Your task to perform on an android device: turn notification dots off Image 0: 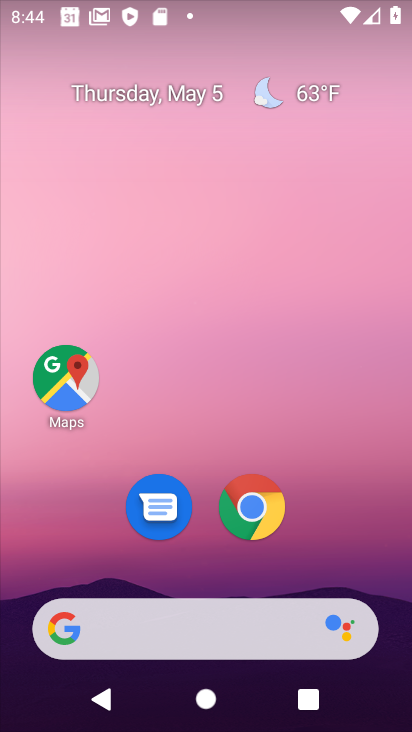
Step 0: drag from (344, 524) to (334, 5)
Your task to perform on an android device: turn notification dots off Image 1: 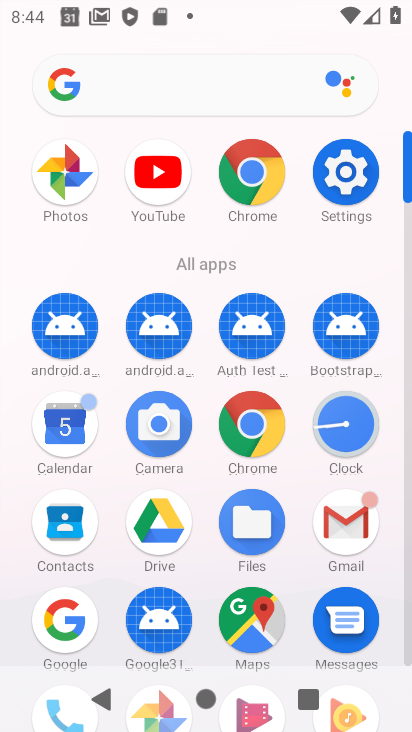
Step 1: click (329, 176)
Your task to perform on an android device: turn notification dots off Image 2: 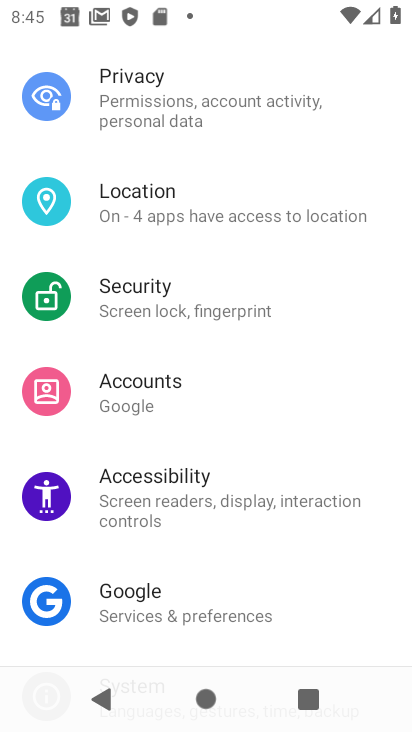
Step 2: drag from (207, 563) to (172, 680)
Your task to perform on an android device: turn notification dots off Image 3: 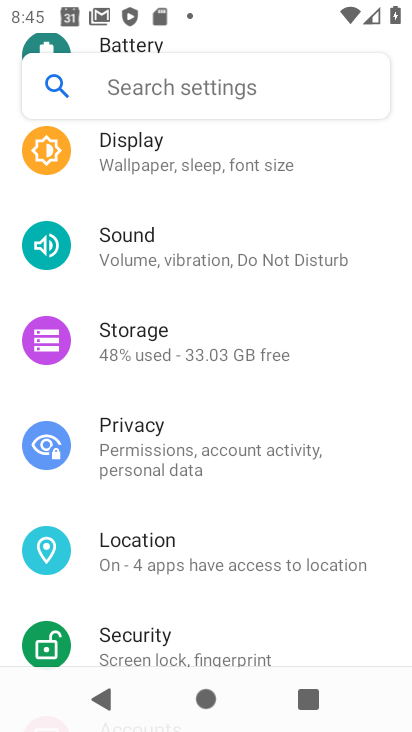
Step 3: drag from (174, 162) to (177, 685)
Your task to perform on an android device: turn notification dots off Image 4: 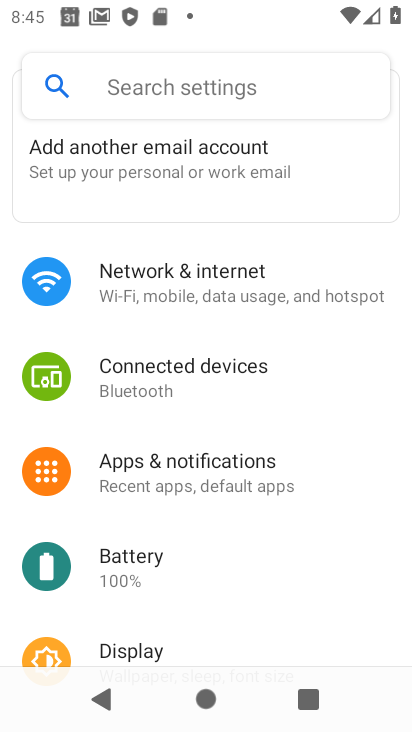
Step 4: click (178, 467)
Your task to perform on an android device: turn notification dots off Image 5: 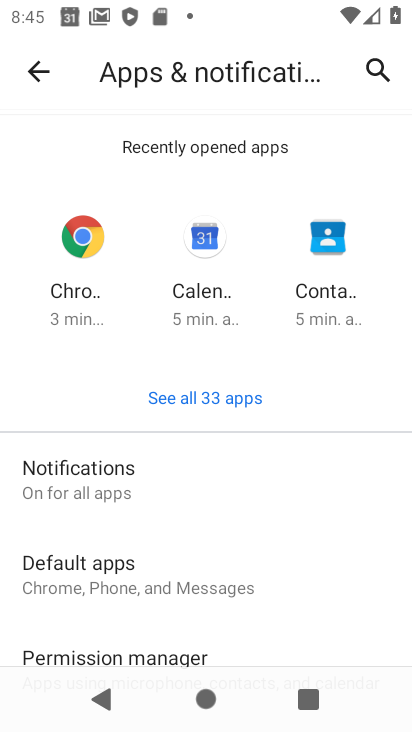
Step 5: drag from (186, 600) to (186, 275)
Your task to perform on an android device: turn notification dots off Image 6: 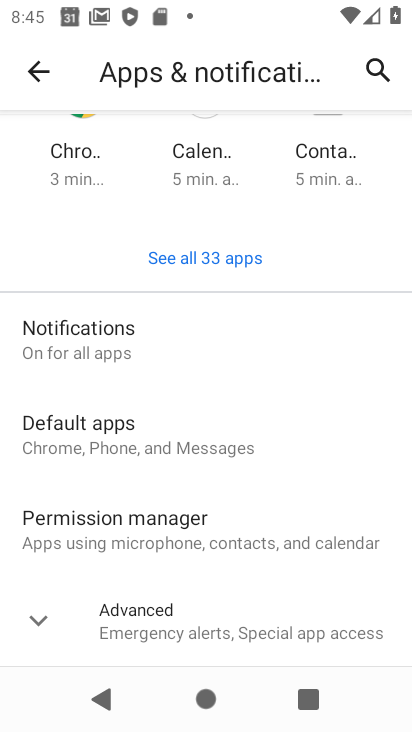
Step 6: click (163, 336)
Your task to perform on an android device: turn notification dots off Image 7: 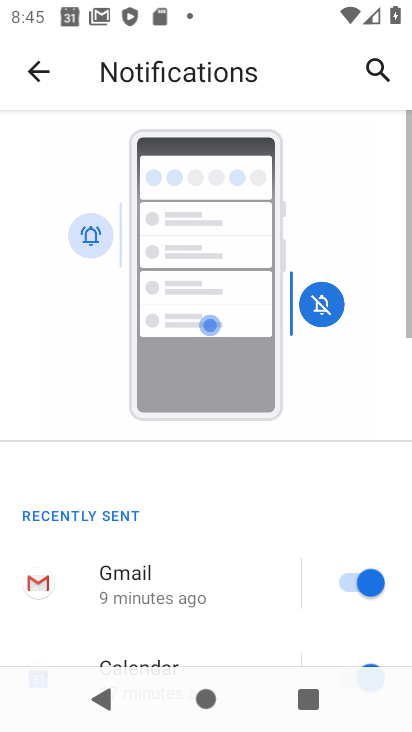
Step 7: drag from (187, 553) to (147, 70)
Your task to perform on an android device: turn notification dots off Image 8: 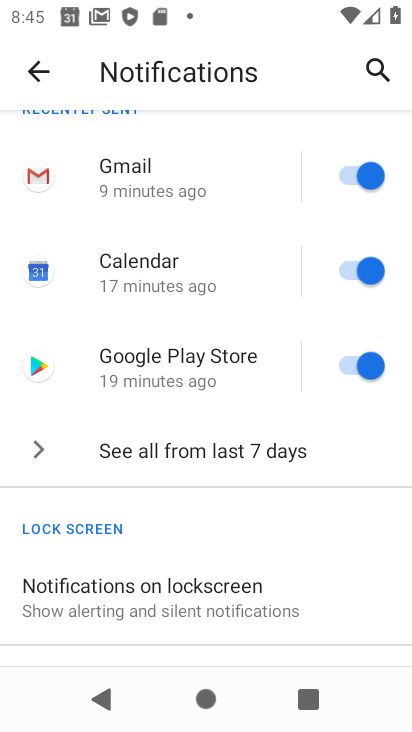
Step 8: drag from (211, 537) to (226, 189)
Your task to perform on an android device: turn notification dots off Image 9: 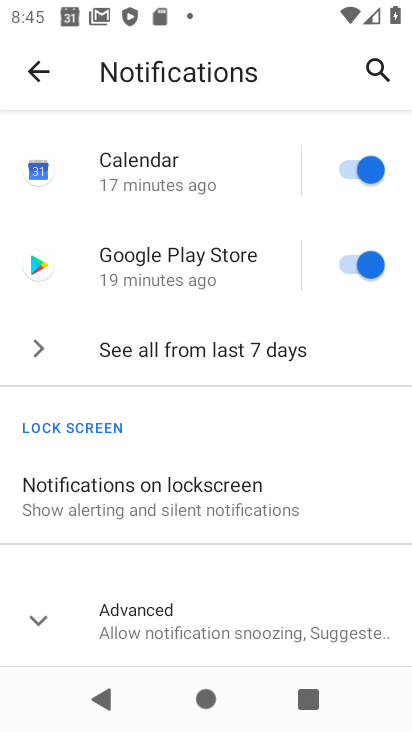
Step 9: click (169, 620)
Your task to perform on an android device: turn notification dots off Image 10: 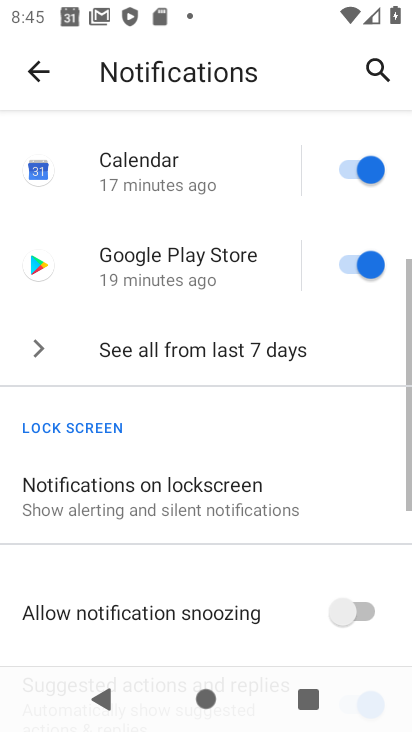
Step 10: drag from (169, 620) to (170, 122)
Your task to perform on an android device: turn notification dots off Image 11: 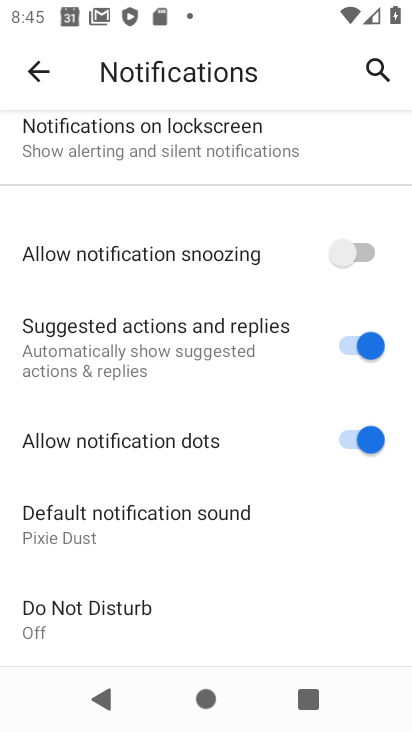
Step 11: click (346, 427)
Your task to perform on an android device: turn notification dots off Image 12: 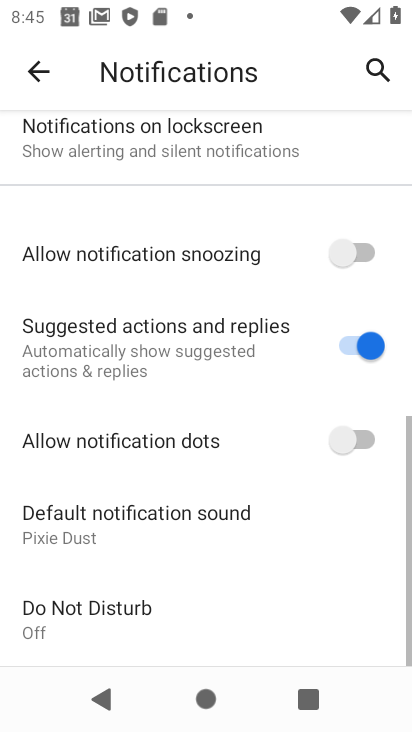
Step 12: task complete